Your task to perform on an android device: turn on bluetooth scan Image 0: 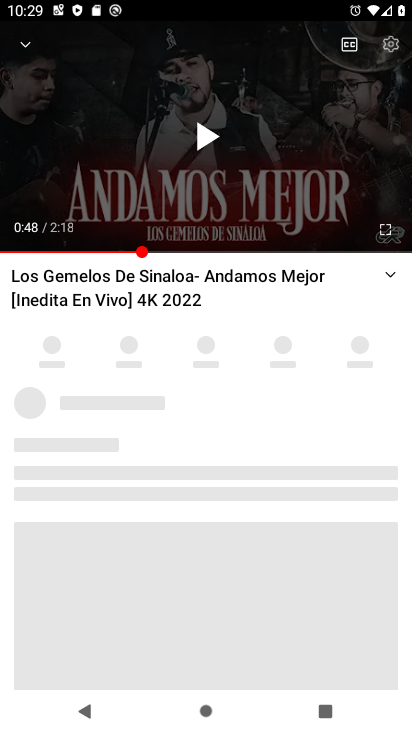
Step 0: press home button
Your task to perform on an android device: turn on bluetooth scan Image 1: 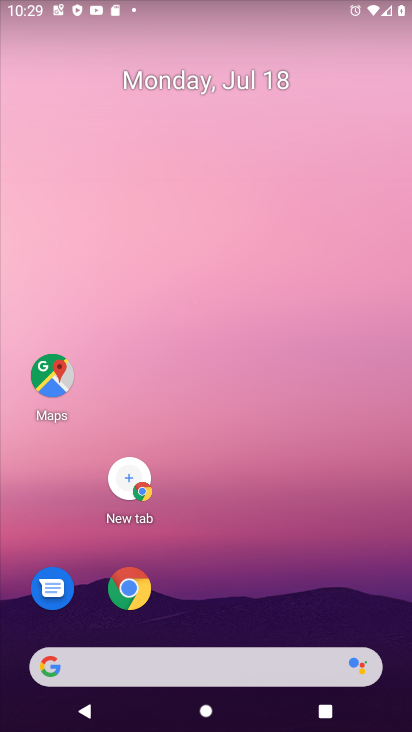
Step 1: drag from (233, 606) to (198, 41)
Your task to perform on an android device: turn on bluetooth scan Image 2: 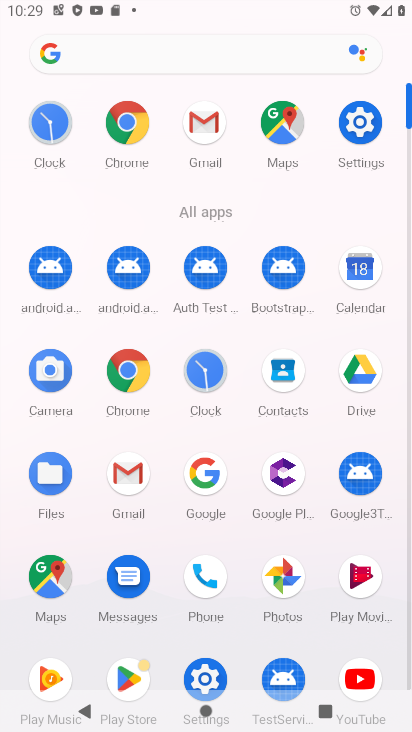
Step 2: click (346, 123)
Your task to perform on an android device: turn on bluetooth scan Image 3: 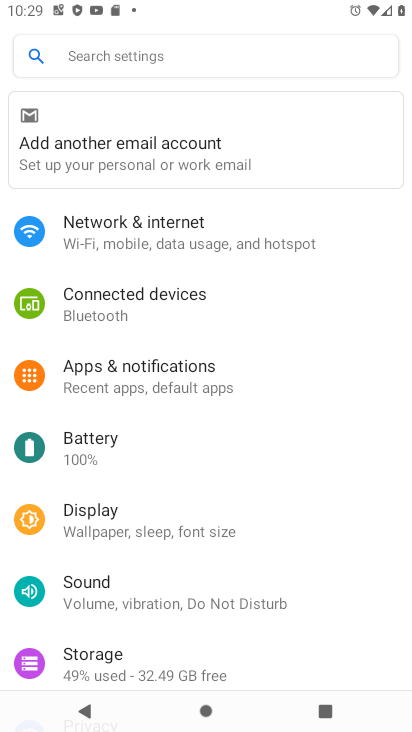
Step 3: drag from (83, 589) to (160, 172)
Your task to perform on an android device: turn on bluetooth scan Image 4: 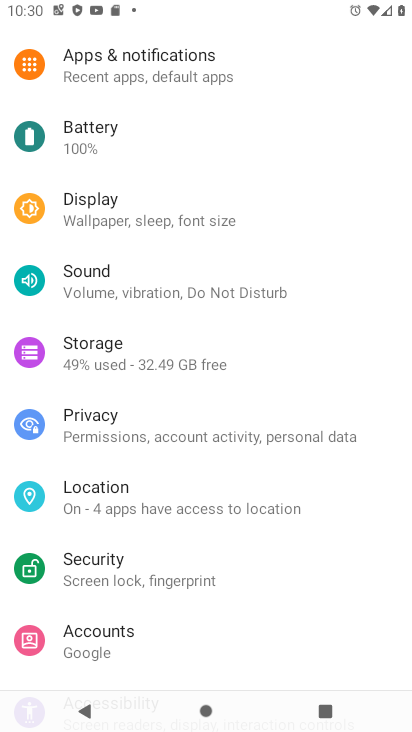
Step 4: drag from (143, 676) to (128, 355)
Your task to perform on an android device: turn on bluetooth scan Image 5: 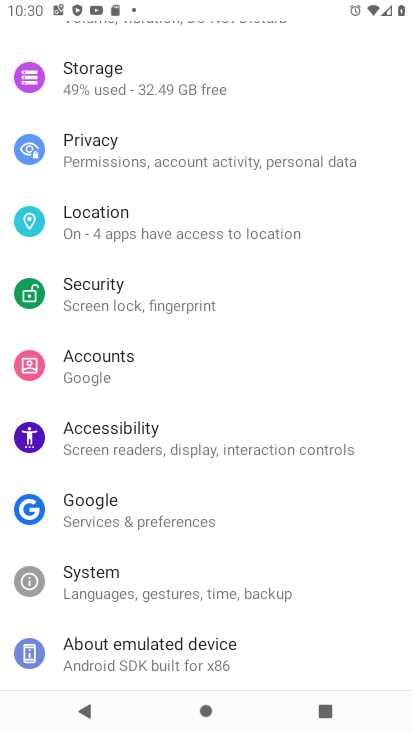
Step 5: click (119, 237)
Your task to perform on an android device: turn on bluetooth scan Image 6: 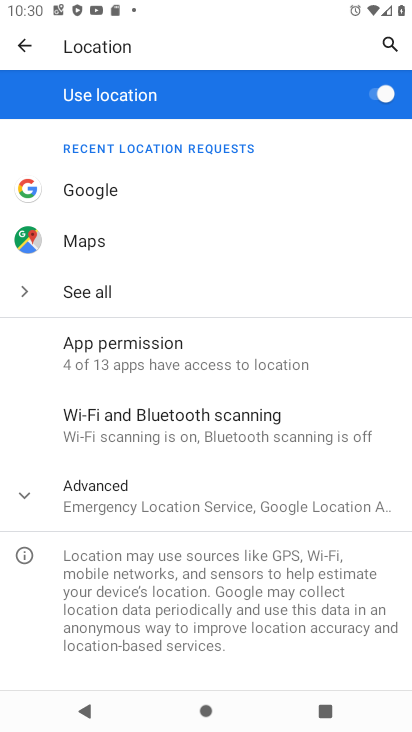
Step 6: click (227, 508)
Your task to perform on an android device: turn on bluetooth scan Image 7: 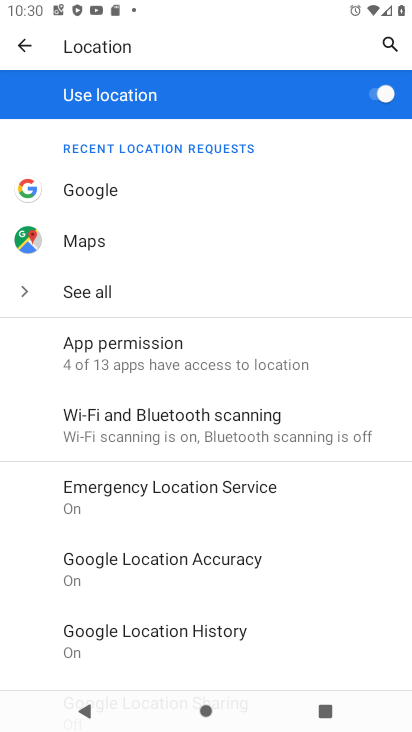
Step 7: click (257, 436)
Your task to perform on an android device: turn on bluetooth scan Image 8: 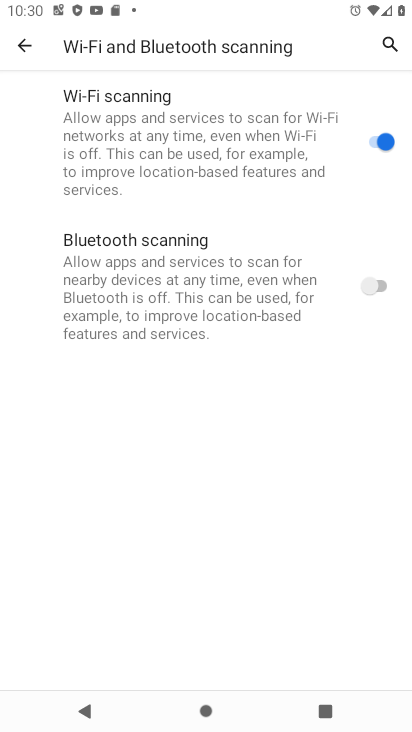
Step 8: click (381, 289)
Your task to perform on an android device: turn on bluetooth scan Image 9: 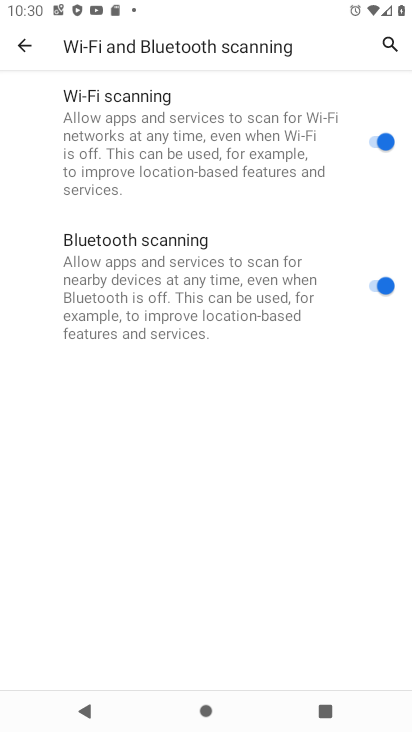
Step 9: task complete